Your task to perform on an android device: Go to Google maps Image 0: 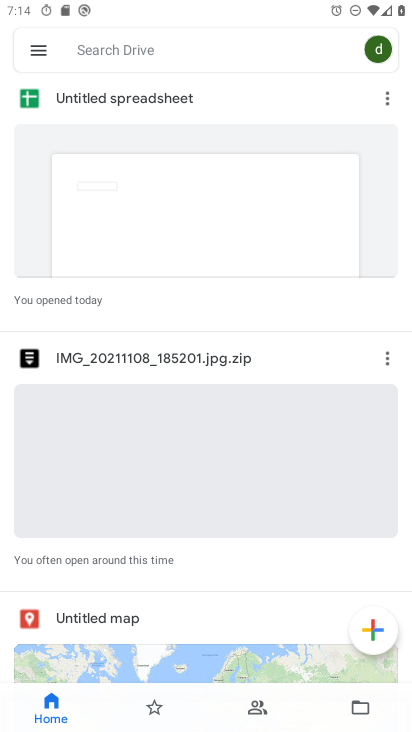
Step 0: press home button
Your task to perform on an android device: Go to Google maps Image 1: 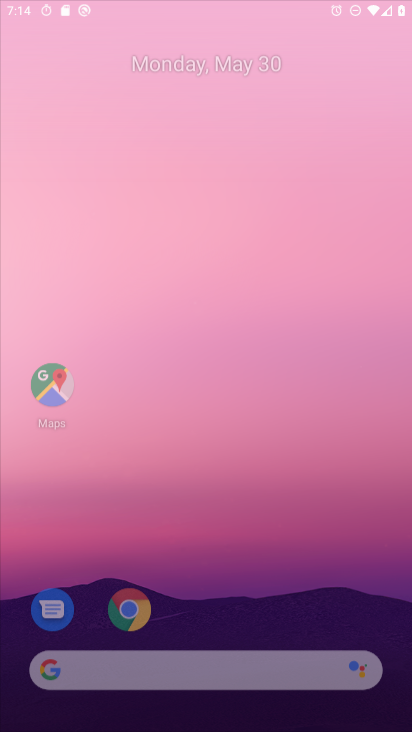
Step 1: drag from (297, 661) to (266, 8)
Your task to perform on an android device: Go to Google maps Image 2: 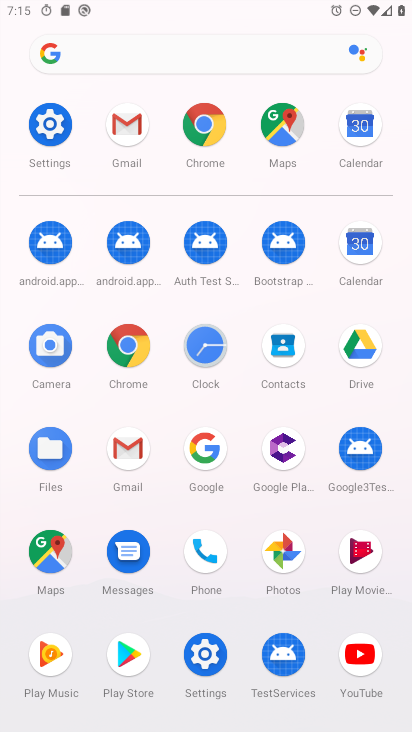
Step 2: click (47, 564)
Your task to perform on an android device: Go to Google maps Image 3: 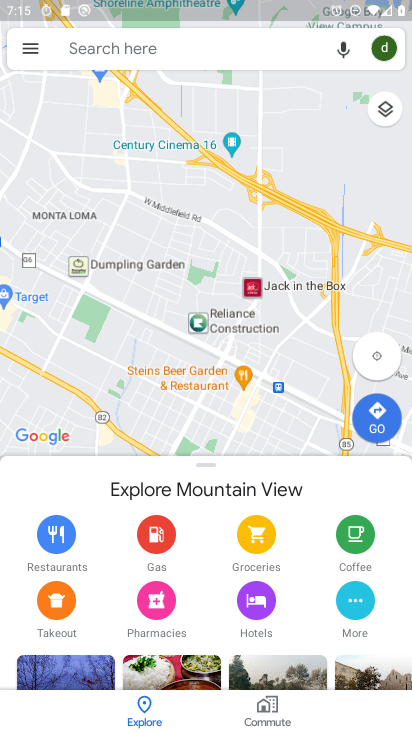
Step 3: task complete